Your task to perform on an android device: What's the time in New York? Image 0: 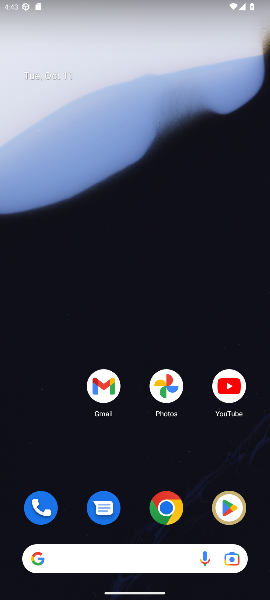
Step 0: click (37, 560)
Your task to perform on an android device: What's the time in New York? Image 1: 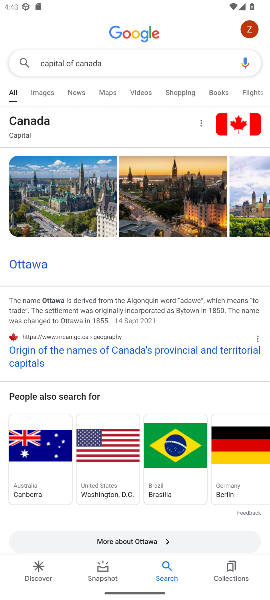
Step 1: click (129, 59)
Your task to perform on an android device: What's the time in New York? Image 2: 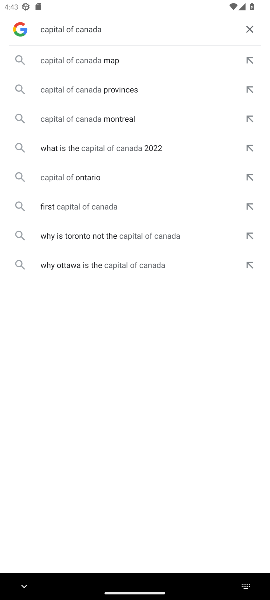
Step 2: click (250, 30)
Your task to perform on an android device: What's the time in New York? Image 3: 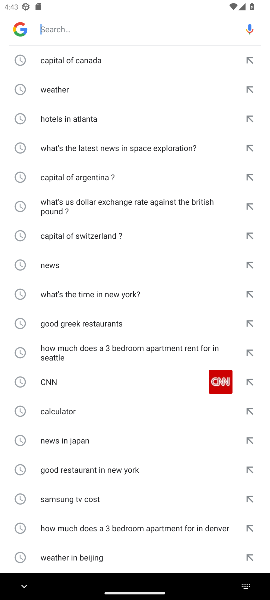
Step 3: type "whats the time in new york ?"
Your task to perform on an android device: What's the time in New York? Image 4: 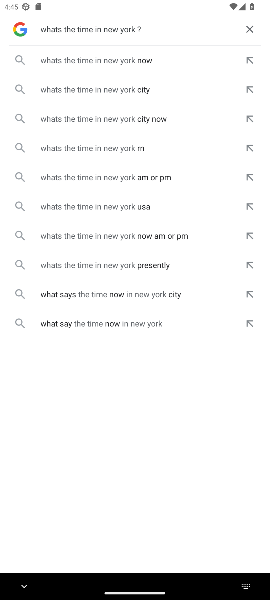
Step 4: task complete